Your task to perform on an android device: Turn off the flashlight Image 0: 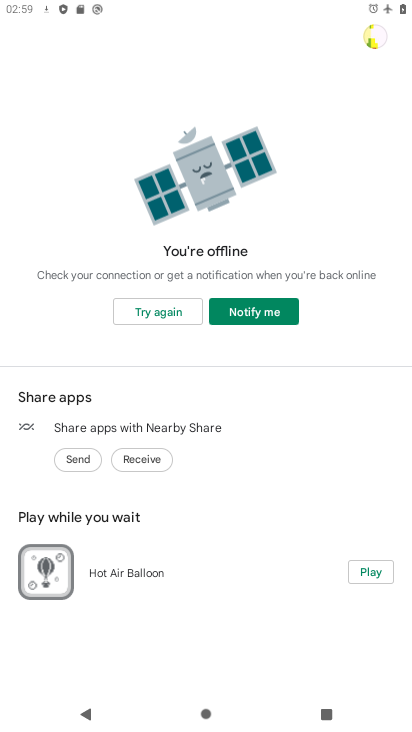
Step 0: press home button
Your task to perform on an android device: Turn off the flashlight Image 1: 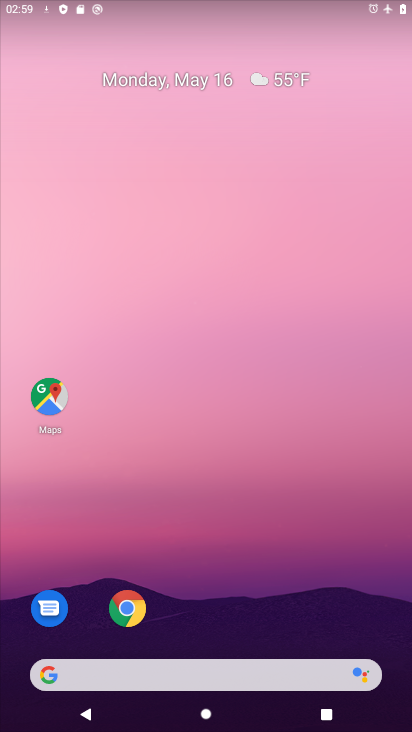
Step 1: drag from (204, 524) to (223, 267)
Your task to perform on an android device: Turn off the flashlight Image 2: 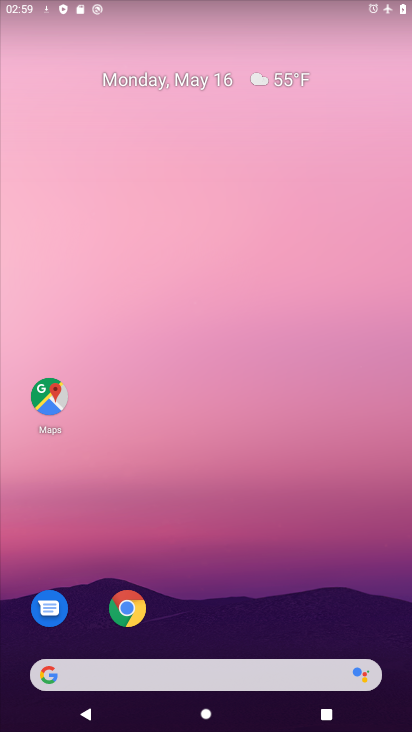
Step 2: drag from (203, 644) to (226, 254)
Your task to perform on an android device: Turn off the flashlight Image 3: 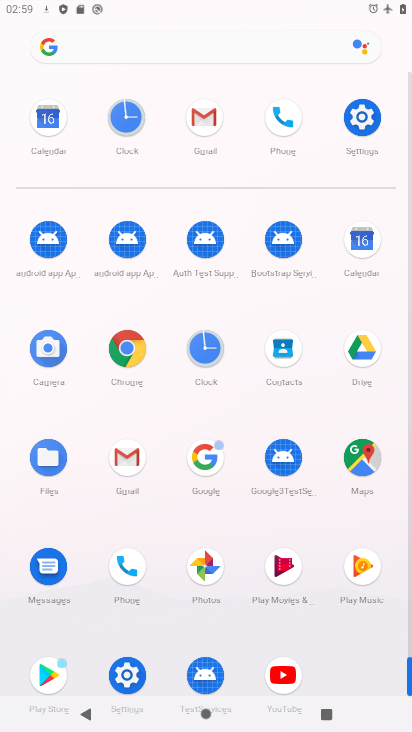
Step 3: click (364, 122)
Your task to perform on an android device: Turn off the flashlight Image 4: 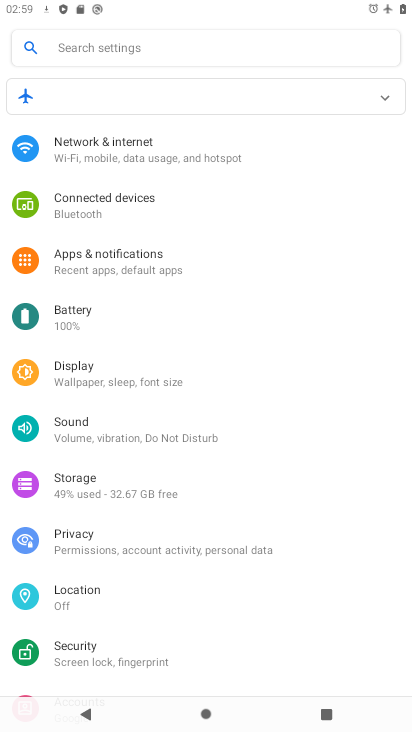
Step 4: task complete